Your task to perform on an android device: turn off smart reply in the gmail app Image 0: 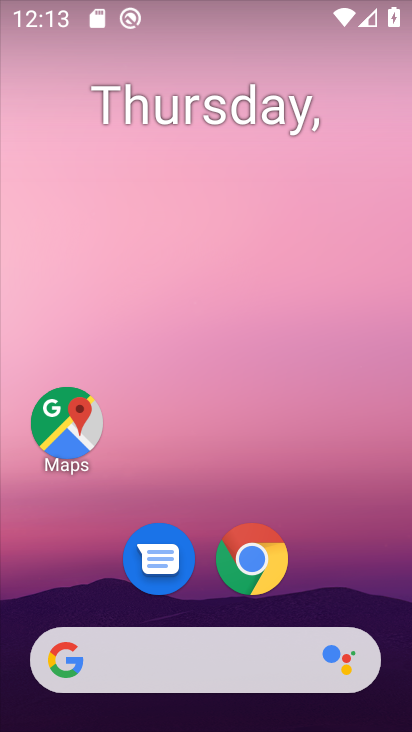
Step 0: drag from (362, 576) to (320, 5)
Your task to perform on an android device: turn off smart reply in the gmail app Image 1: 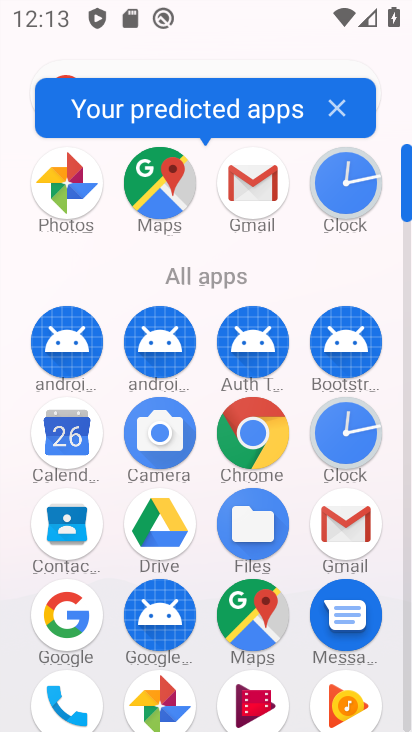
Step 1: click (250, 175)
Your task to perform on an android device: turn off smart reply in the gmail app Image 2: 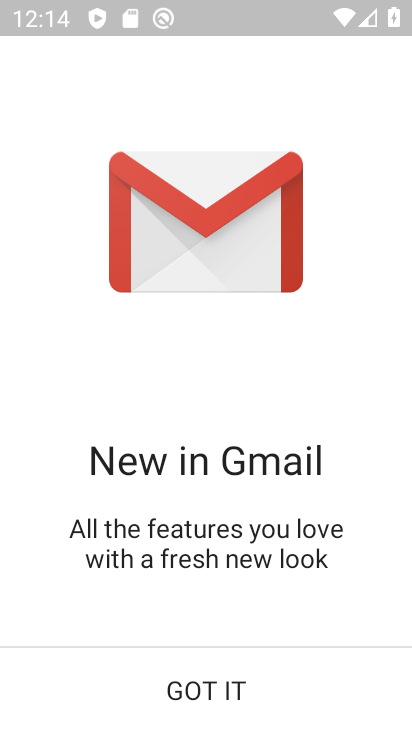
Step 2: click (247, 699)
Your task to perform on an android device: turn off smart reply in the gmail app Image 3: 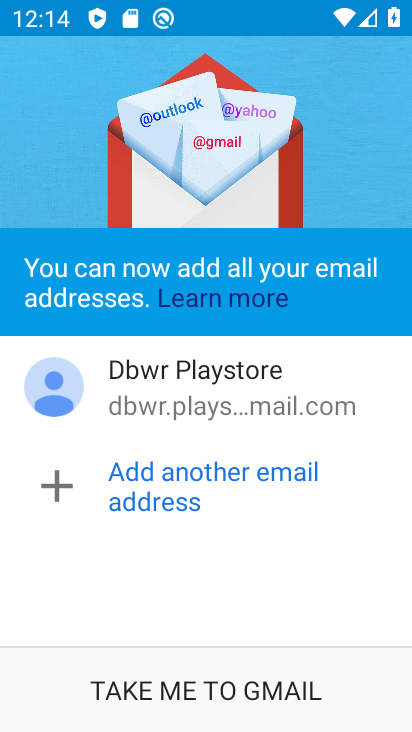
Step 3: click (246, 687)
Your task to perform on an android device: turn off smart reply in the gmail app Image 4: 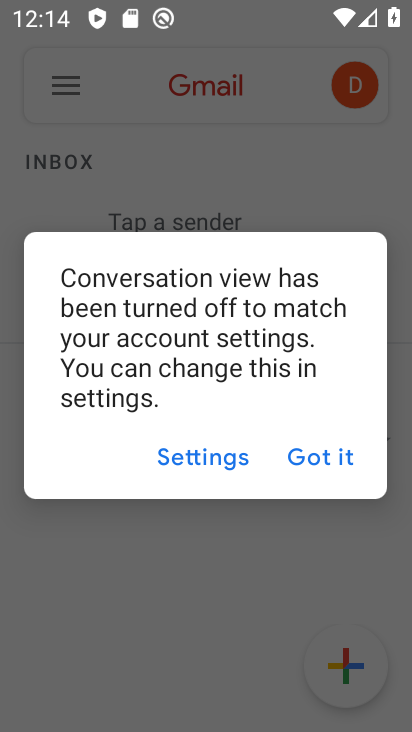
Step 4: click (341, 455)
Your task to perform on an android device: turn off smart reply in the gmail app Image 5: 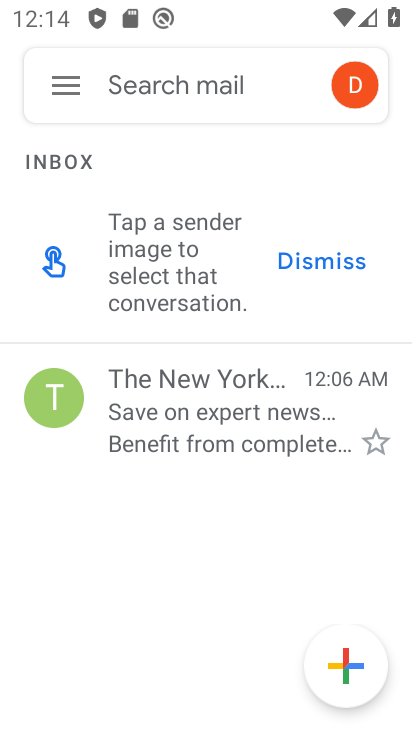
Step 5: click (50, 79)
Your task to perform on an android device: turn off smart reply in the gmail app Image 6: 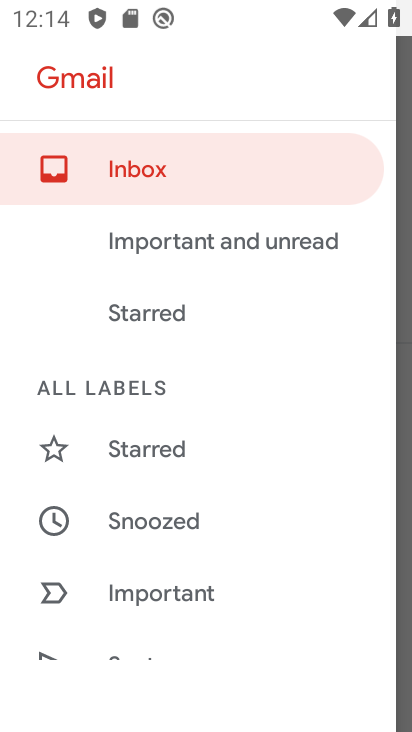
Step 6: drag from (294, 584) to (254, 36)
Your task to perform on an android device: turn off smart reply in the gmail app Image 7: 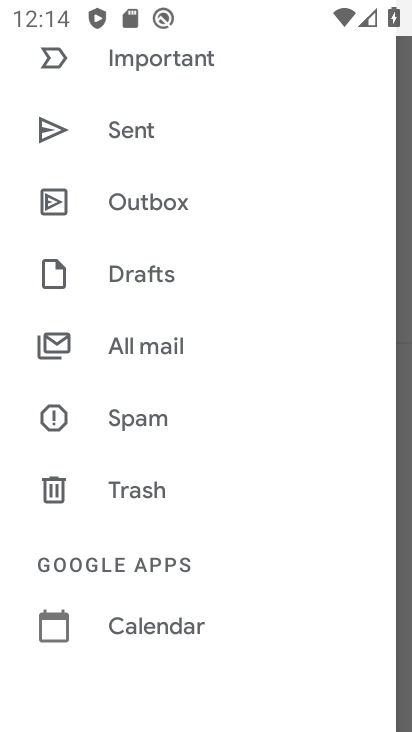
Step 7: drag from (263, 583) to (254, 121)
Your task to perform on an android device: turn off smart reply in the gmail app Image 8: 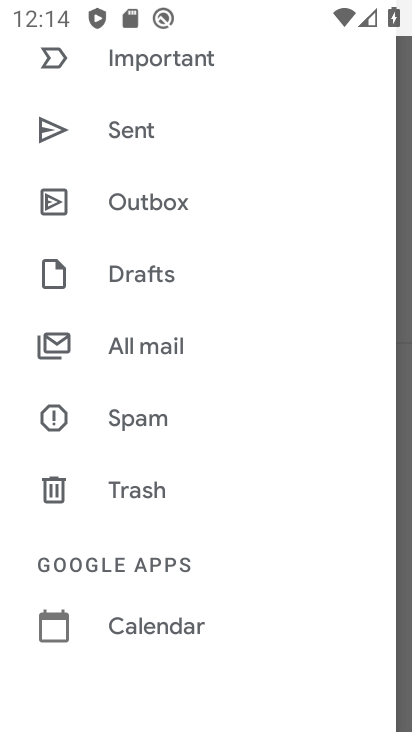
Step 8: drag from (266, 581) to (273, 257)
Your task to perform on an android device: turn off smart reply in the gmail app Image 9: 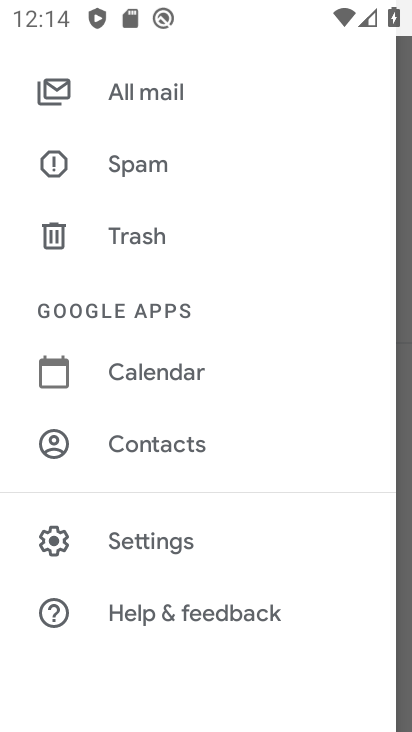
Step 9: click (186, 532)
Your task to perform on an android device: turn off smart reply in the gmail app Image 10: 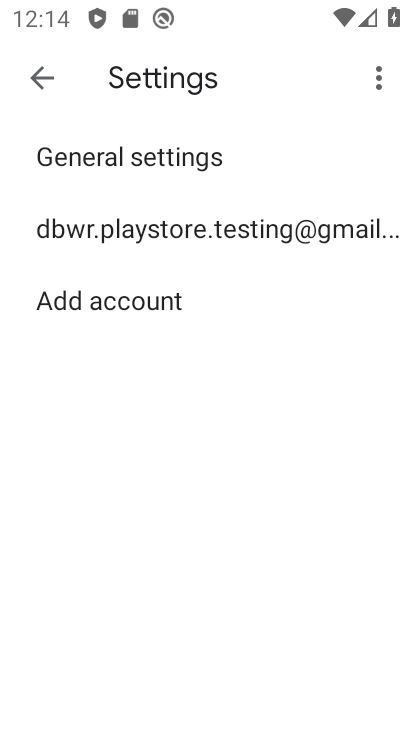
Step 10: click (191, 232)
Your task to perform on an android device: turn off smart reply in the gmail app Image 11: 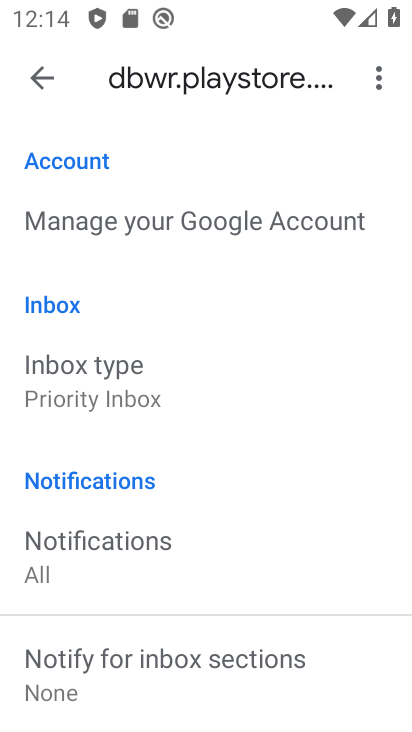
Step 11: drag from (275, 653) to (255, 205)
Your task to perform on an android device: turn off smart reply in the gmail app Image 12: 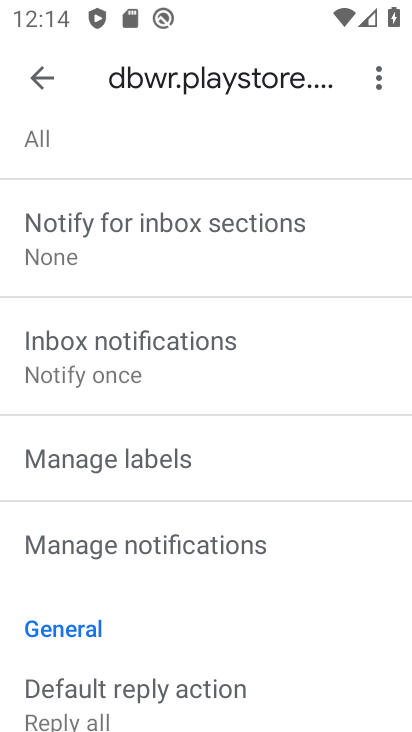
Step 12: drag from (326, 666) to (333, 329)
Your task to perform on an android device: turn off smart reply in the gmail app Image 13: 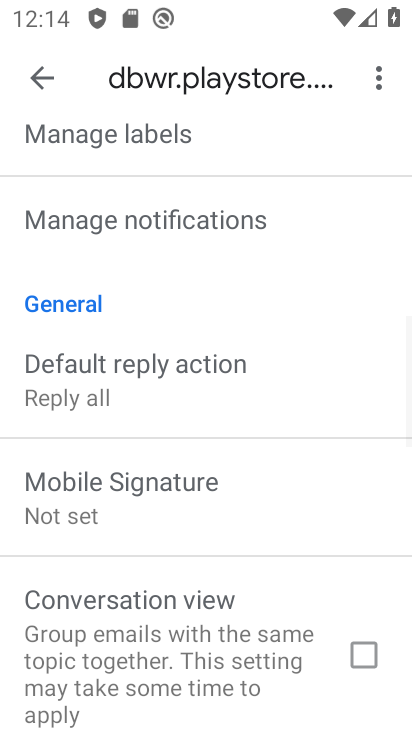
Step 13: drag from (330, 637) to (317, 286)
Your task to perform on an android device: turn off smart reply in the gmail app Image 14: 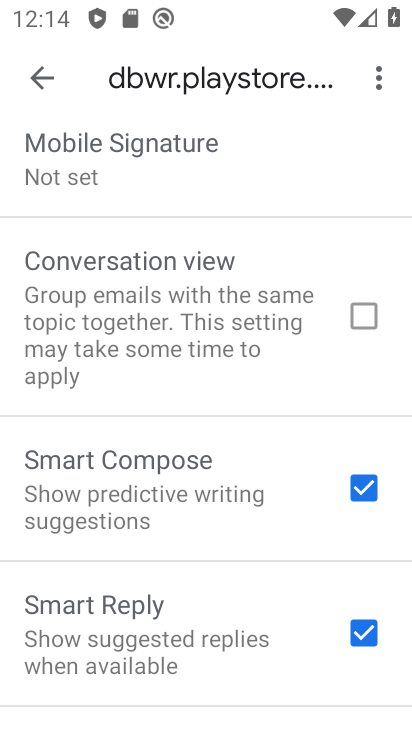
Step 14: click (374, 637)
Your task to perform on an android device: turn off smart reply in the gmail app Image 15: 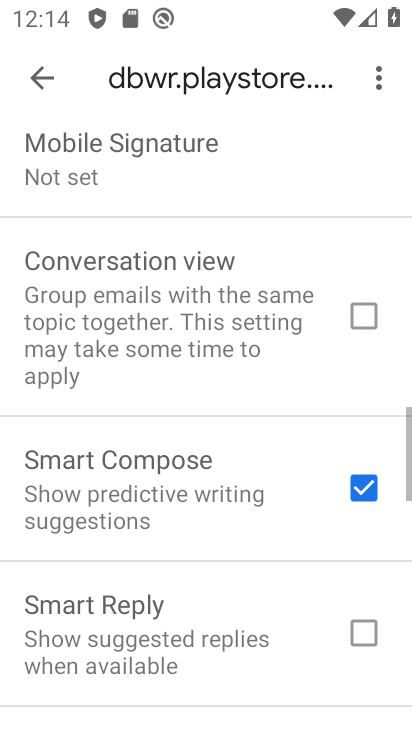
Step 15: task complete